Your task to perform on an android device: snooze an email in the gmail app Image 0: 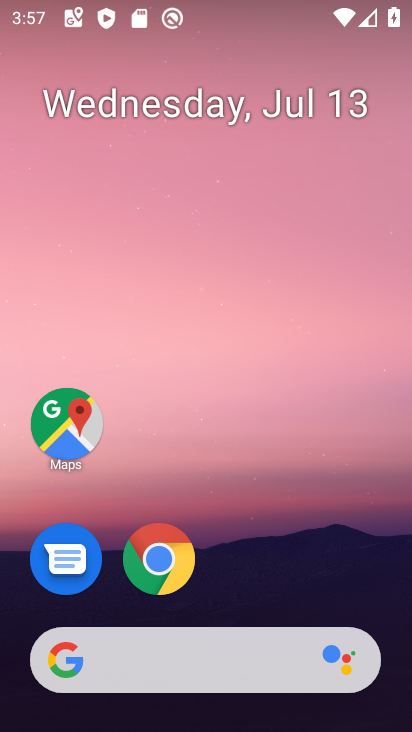
Step 0: drag from (267, 602) to (227, 17)
Your task to perform on an android device: snooze an email in the gmail app Image 1: 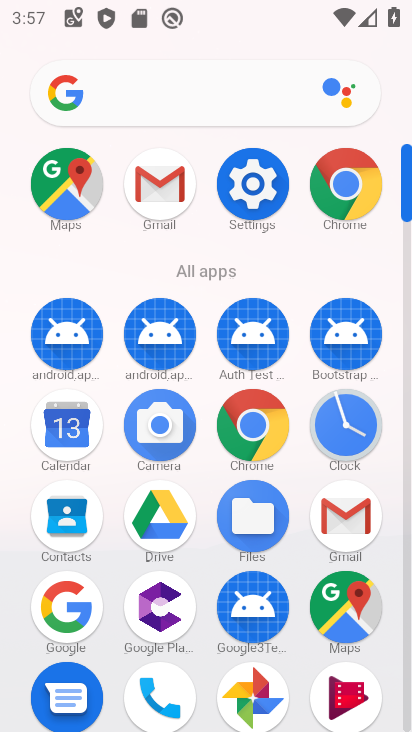
Step 1: click (159, 174)
Your task to perform on an android device: snooze an email in the gmail app Image 2: 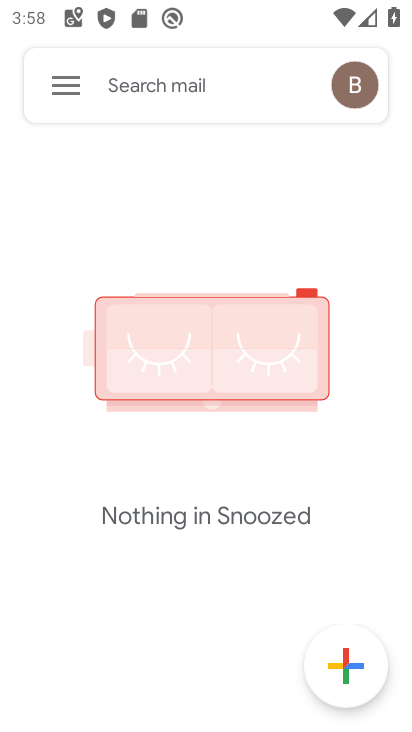
Step 2: click (75, 92)
Your task to perform on an android device: snooze an email in the gmail app Image 3: 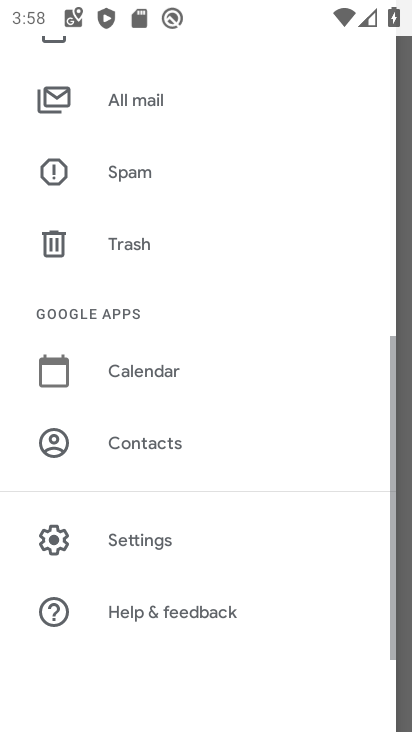
Step 3: click (98, 96)
Your task to perform on an android device: snooze an email in the gmail app Image 4: 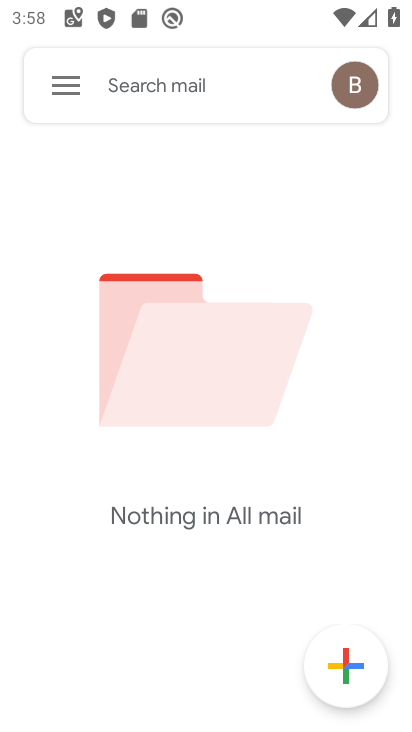
Step 4: task complete